Your task to perform on an android device: Is it going to rain today? Image 0: 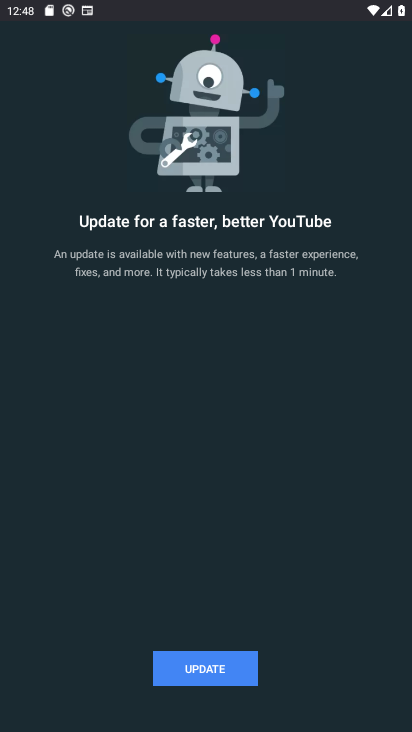
Step 0: press home button
Your task to perform on an android device: Is it going to rain today? Image 1: 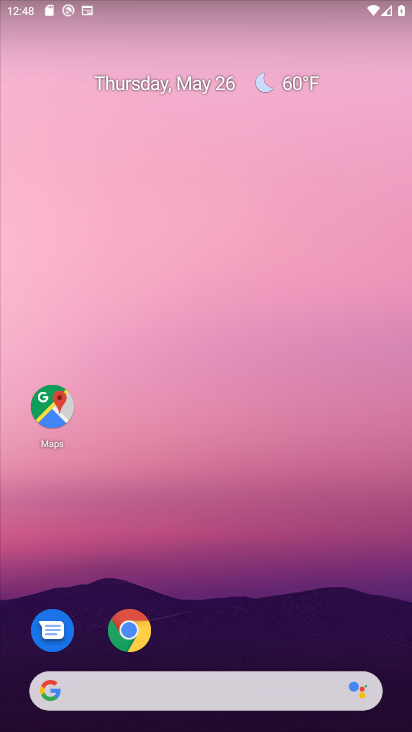
Step 1: drag from (247, 550) to (252, 81)
Your task to perform on an android device: Is it going to rain today? Image 2: 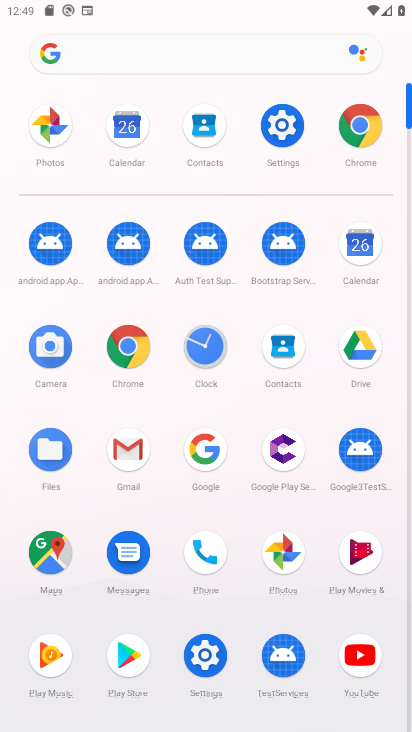
Step 2: click (50, 55)
Your task to perform on an android device: Is it going to rain today? Image 3: 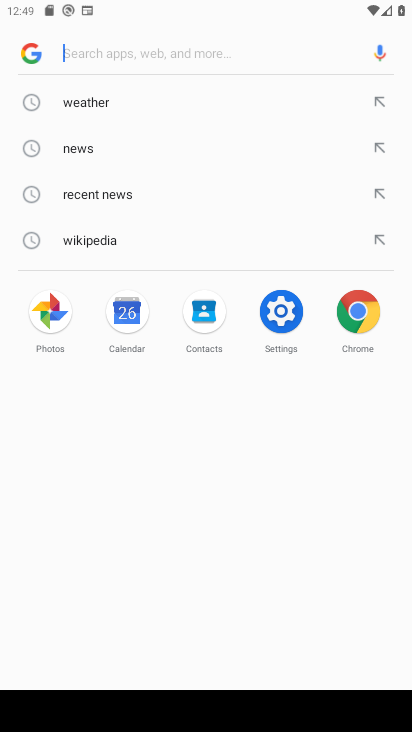
Step 3: click (50, 54)
Your task to perform on an android device: Is it going to rain today? Image 4: 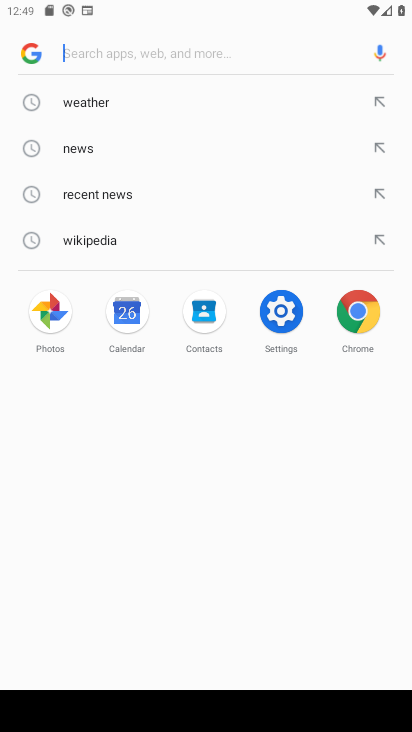
Step 4: click (39, 54)
Your task to perform on an android device: Is it going to rain today? Image 5: 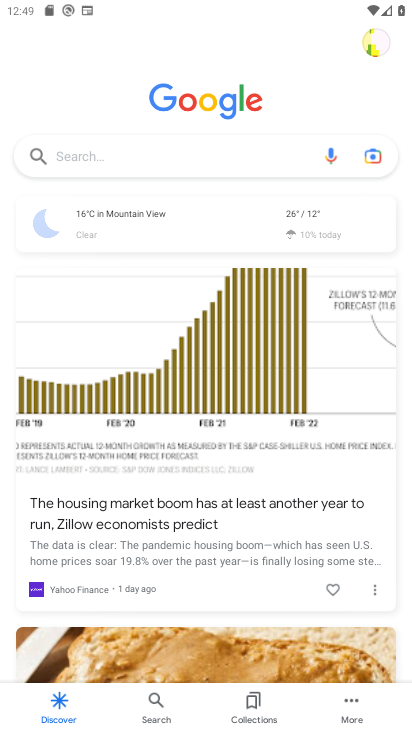
Step 5: click (178, 222)
Your task to perform on an android device: Is it going to rain today? Image 6: 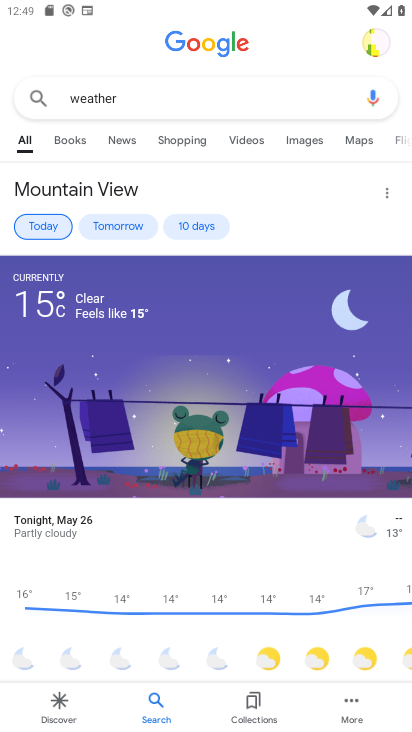
Step 6: task complete